Your task to perform on an android device: Go to privacy settings Image 0: 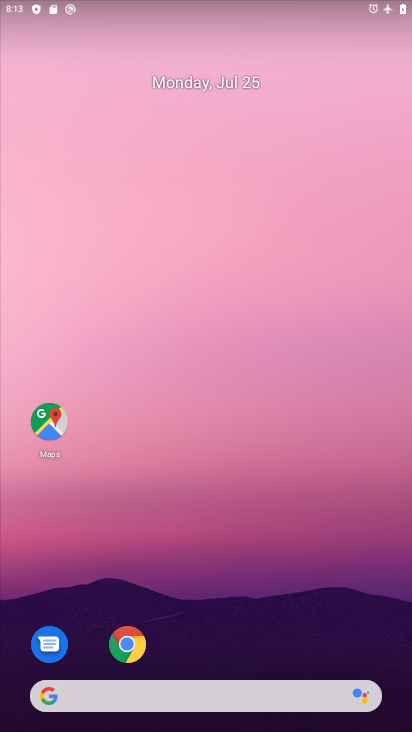
Step 0: drag from (209, 537) to (162, 22)
Your task to perform on an android device: Go to privacy settings Image 1: 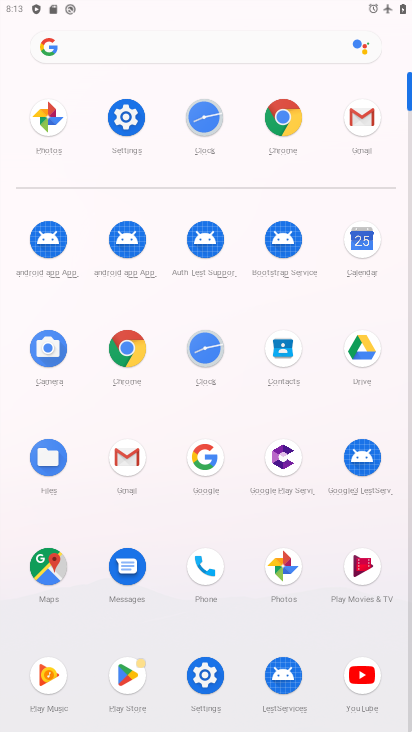
Step 1: click (127, 119)
Your task to perform on an android device: Go to privacy settings Image 2: 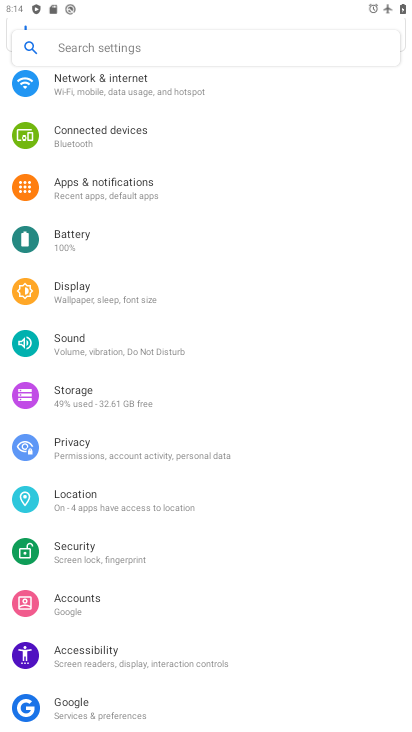
Step 2: click (62, 454)
Your task to perform on an android device: Go to privacy settings Image 3: 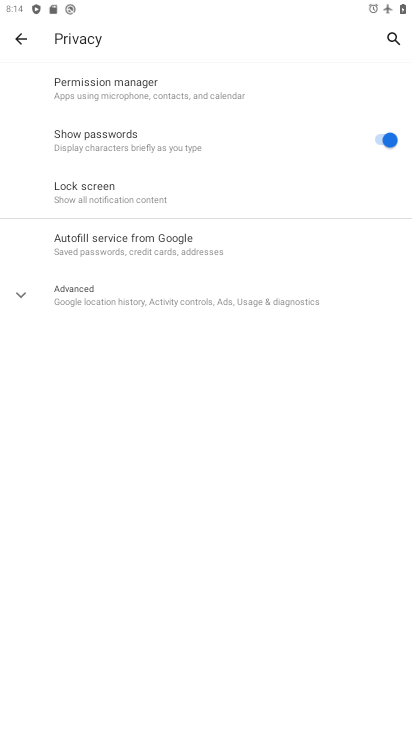
Step 3: task complete